Your task to perform on an android device: Open calendar and show me the second week of next month Image 0: 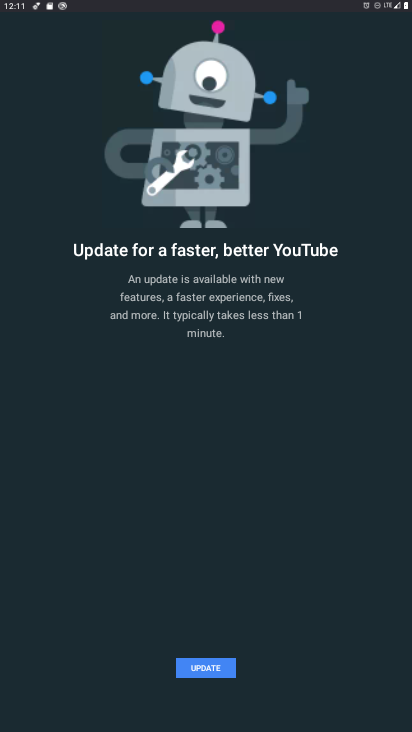
Step 0: press home button
Your task to perform on an android device: Open calendar and show me the second week of next month Image 1: 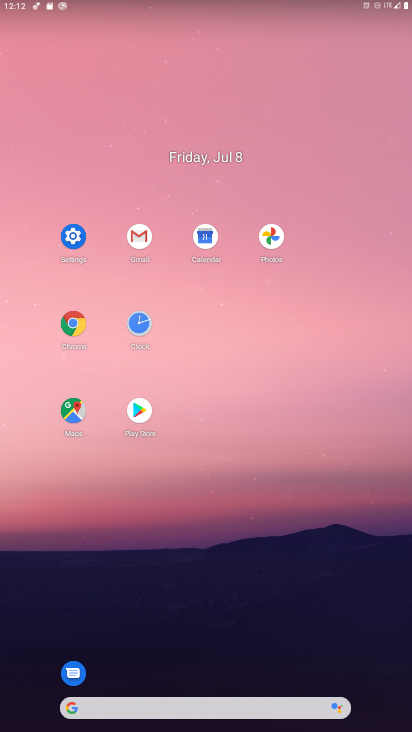
Step 1: click (214, 228)
Your task to perform on an android device: Open calendar and show me the second week of next month Image 2: 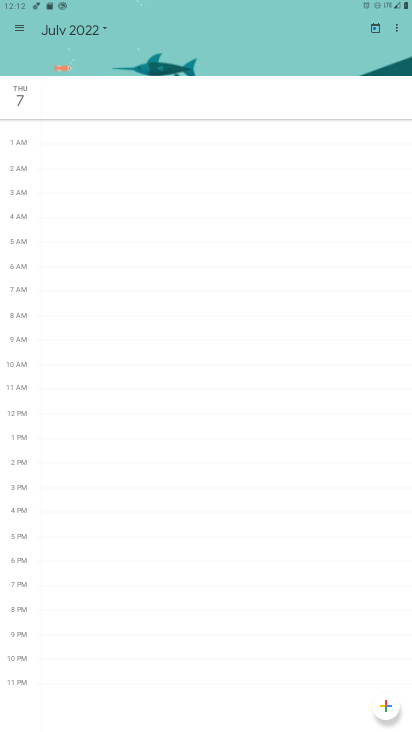
Step 2: click (103, 25)
Your task to perform on an android device: Open calendar and show me the second week of next month Image 3: 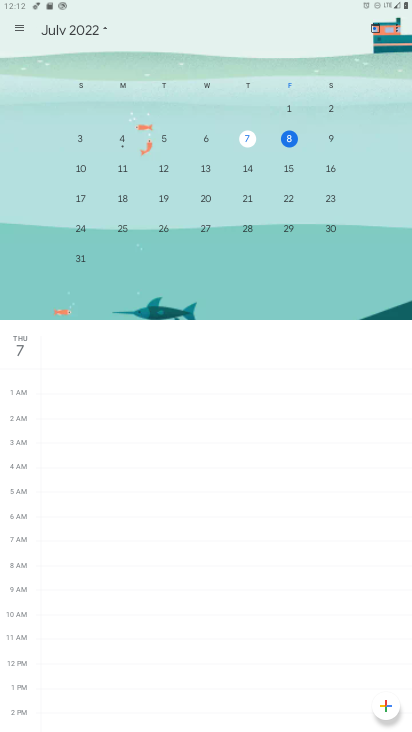
Step 3: drag from (351, 178) to (17, 223)
Your task to perform on an android device: Open calendar and show me the second week of next month Image 4: 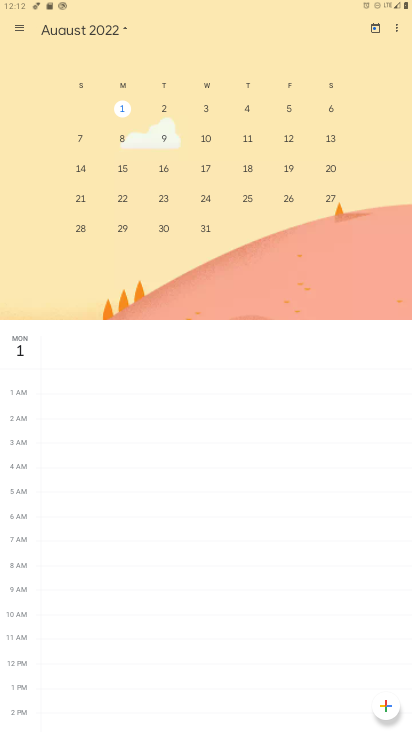
Step 4: click (350, 156)
Your task to perform on an android device: Open calendar and show me the second week of next month Image 5: 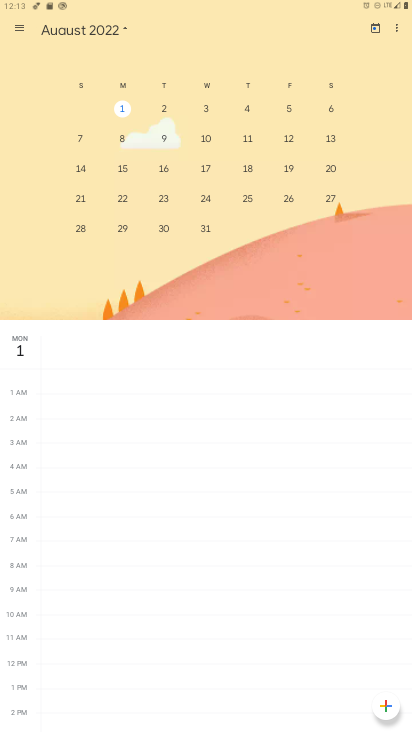
Step 5: click (128, 140)
Your task to perform on an android device: Open calendar and show me the second week of next month Image 6: 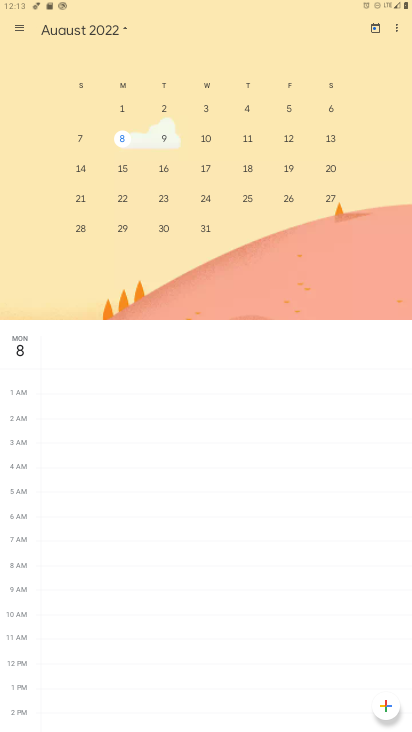
Step 6: click (26, 26)
Your task to perform on an android device: Open calendar and show me the second week of next month Image 7: 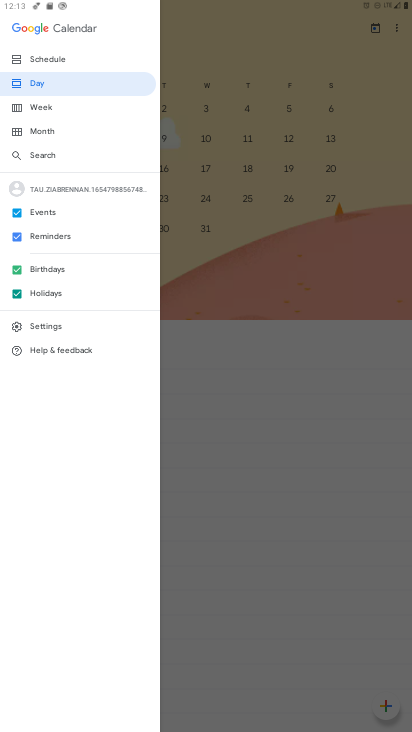
Step 7: click (48, 105)
Your task to perform on an android device: Open calendar and show me the second week of next month Image 8: 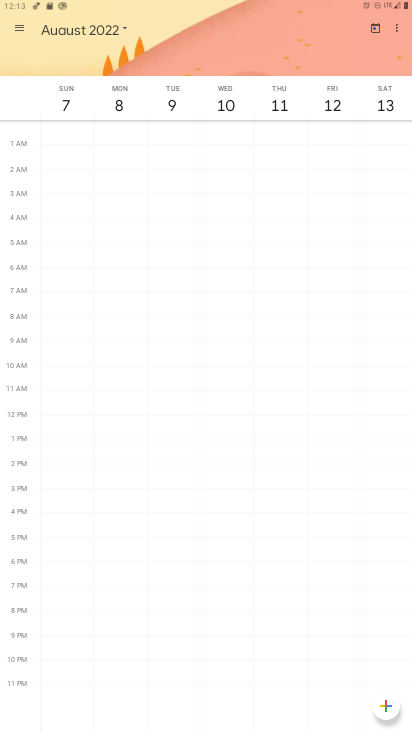
Step 8: task complete